Your task to perform on an android device: turn on airplane mode Image 0: 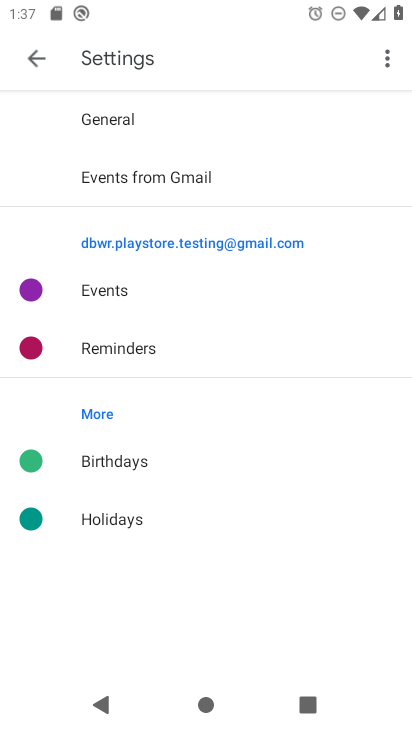
Step 0: press home button
Your task to perform on an android device: turn on airplane mode Image 1: 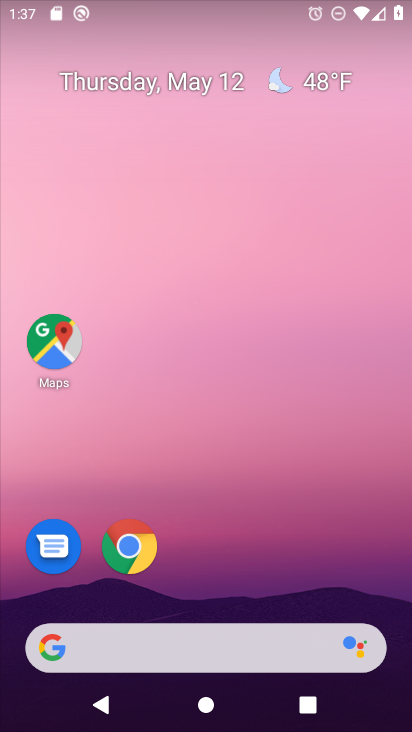
Step 1: drag from (237, 646) to (361, 213)
Your task to perform on an android device: turn on airplane mode Image 2: 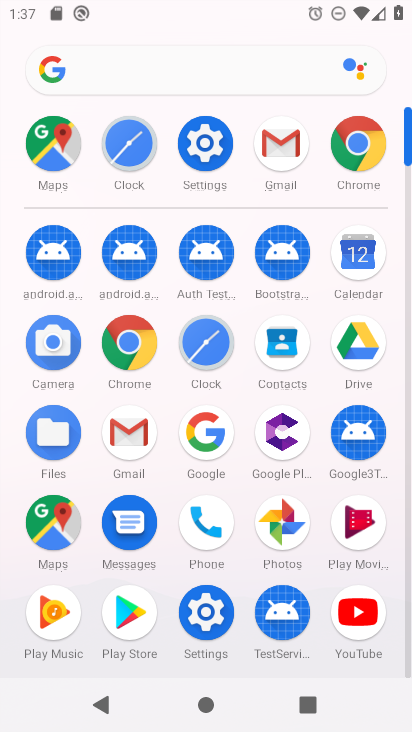
Step 2: click (202, 142)
Your task to perform on an android device: turn on airplane mode Image 3: 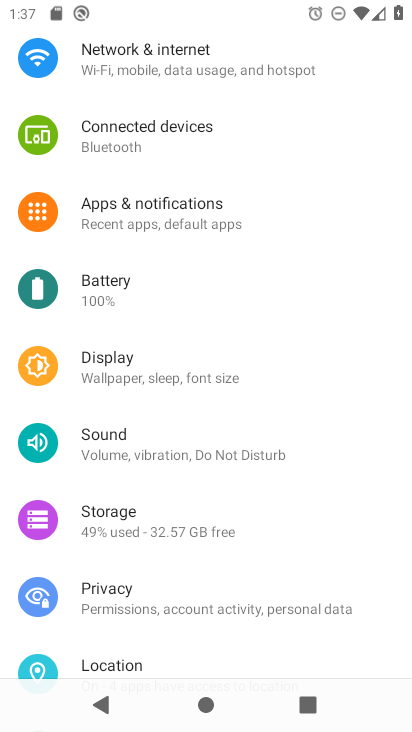
Step 3: drag from (248, 108) to (128, 416)
Your task to perform on an android device: turn on airplane mode Image 4: 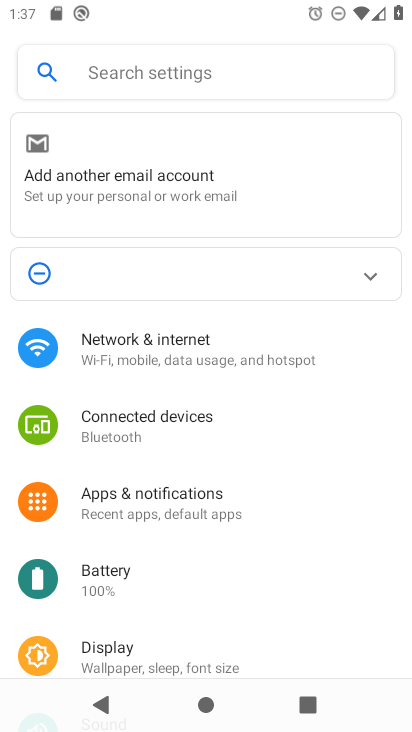
Step 4: click (174, 341)
Your task to perform on an android device: turn on airplane mode Image 5: 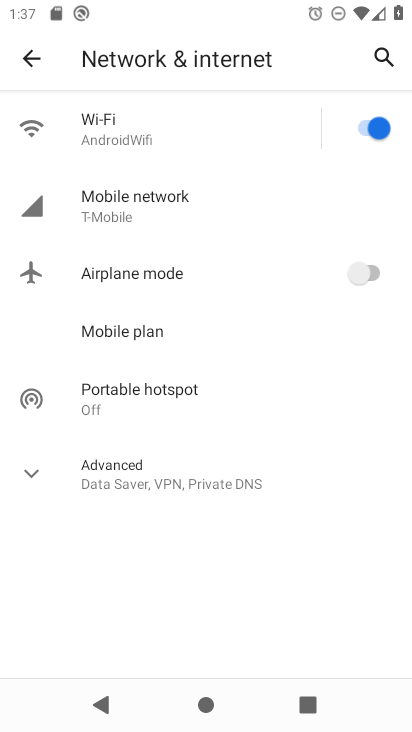
Step 5: click (375, 274)
Your task to perform on an android device: turn on airplane mode Image 6: 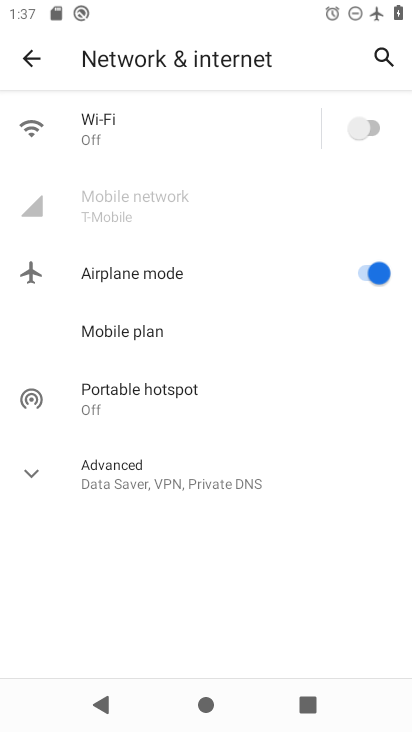
Step 6: task complete